Your task to perform on an android device: see creations saved in the google photos Image 0: 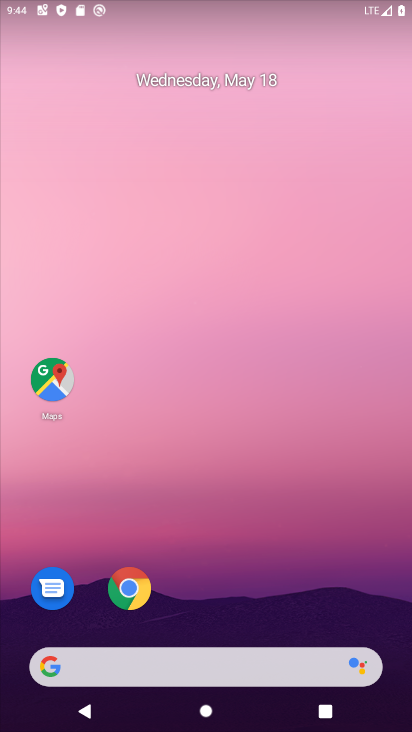
Step 0: drag from (280, 625) to (280, 9)
Your task to perform on an android device: see creations saved in the google photos Image 1: 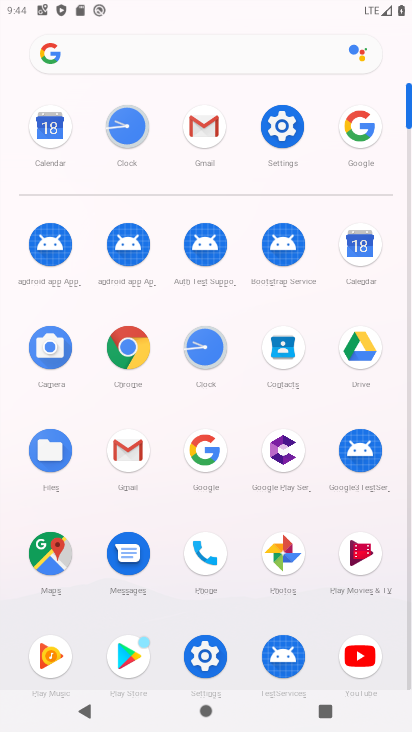
Step 1: click (286, 547)
Your task to perform on an android device: see creations saved in the google photos Image 2: 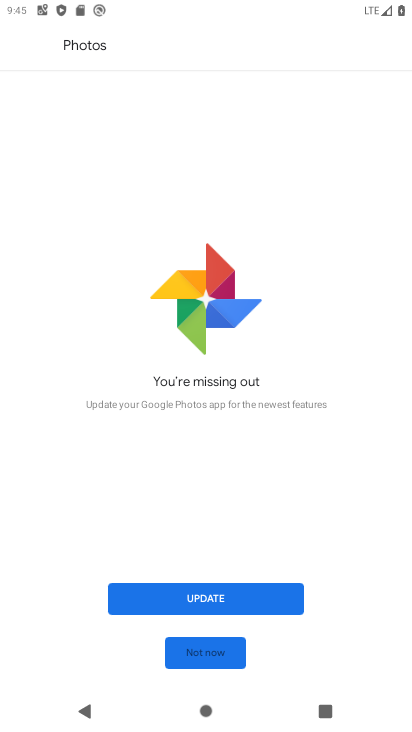
Step 2: click (205, 655)
Your task to perform on an android device: see creations saved in the google photos Image 3: 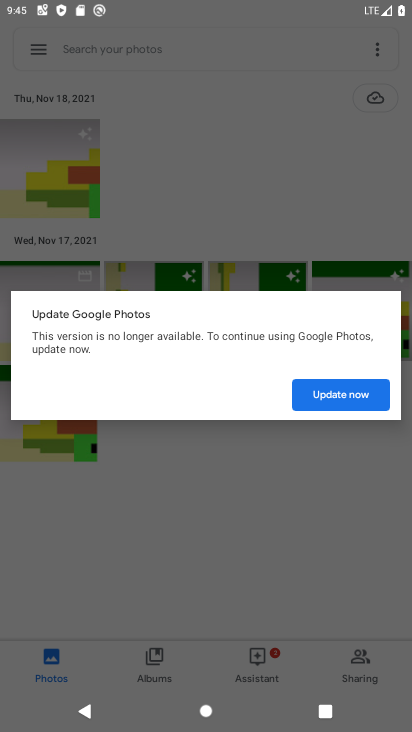
Step 3: click (312, 400)
Your task to perform on an android device: see creations saved in the google photos Image 4: 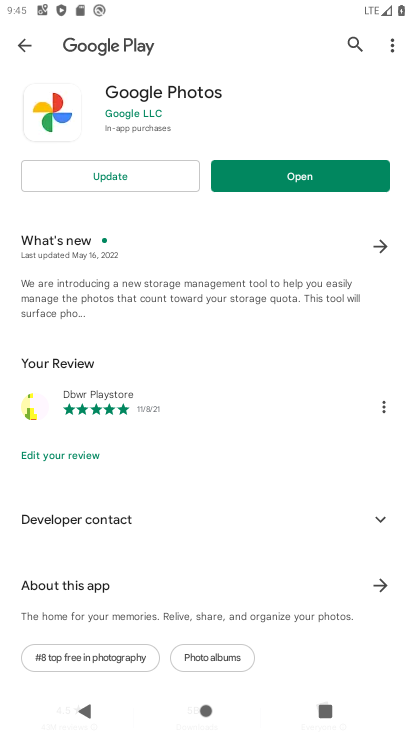
Step 4: click (250, 182)
Your task to perform on an android device: see creations saved in the google photos Image 5: 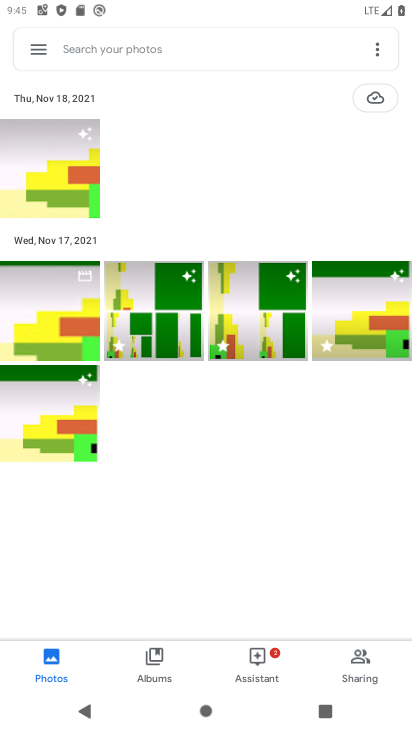
Step 5: click (133, 48)
Your task to perform on an android device: see creations saved in the google photos Image 6: 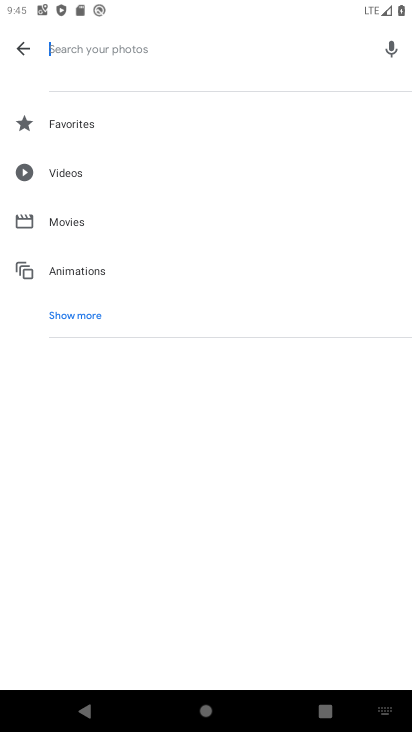
Step 6: click (62, 314)
Your task to perform on an android device: see creations saved in the google photos Image 7: 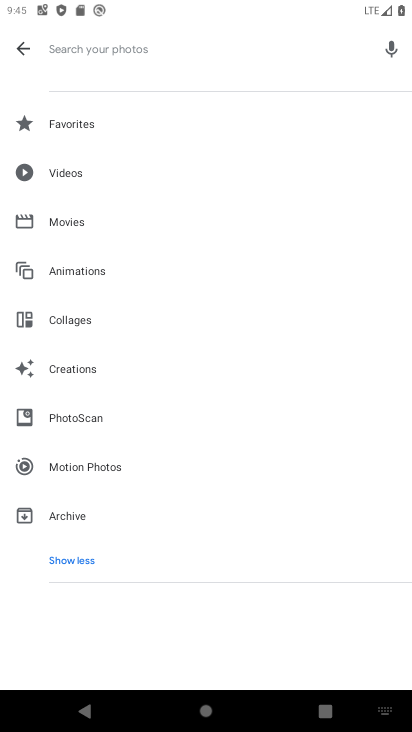
Step 7: click (59, 367)
Your task to perform on an android device: see creations saved in the google photos Image 8: 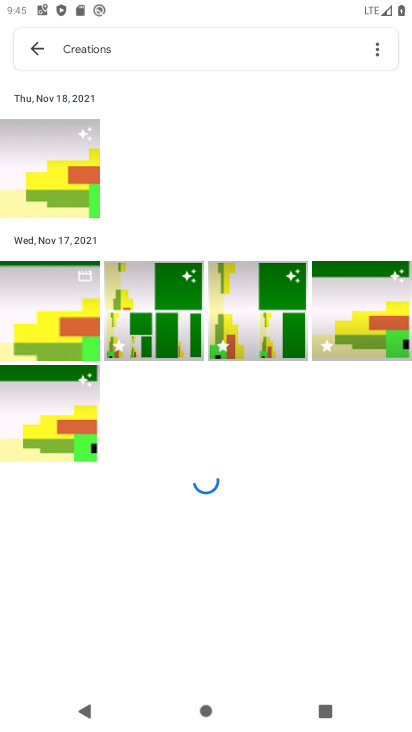
Step 8: task complete